Your task to perform on an android device: Open accessibility settings Image 0: 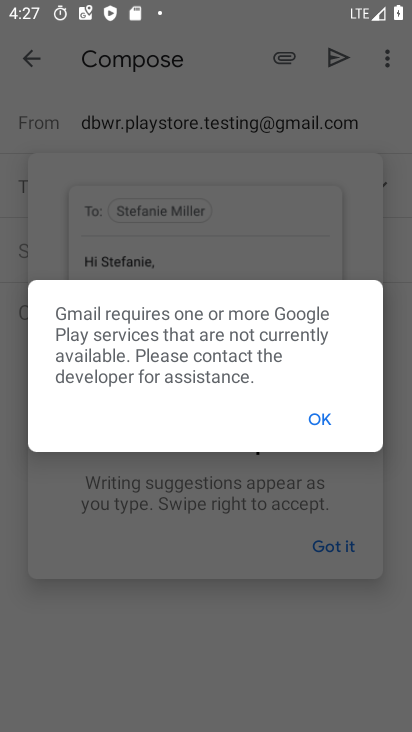
Step 0: press home button
Your task to perform on an android device: Open accessibility settings Image 1: 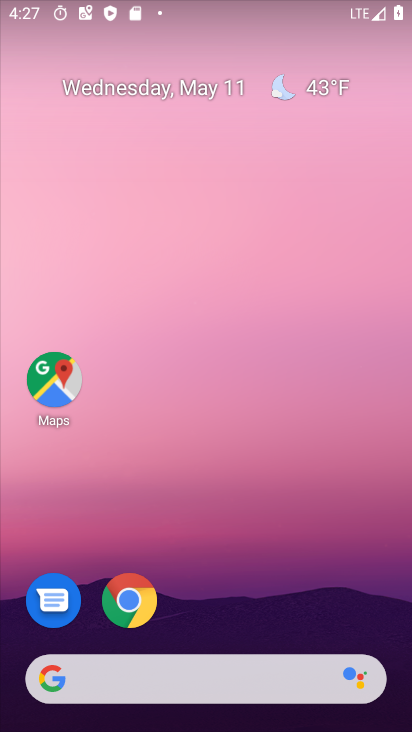
Step 1: drag from (288, 616) to (333, 16)
Your task to perform on an android device: Open accessibility settings Image 2: 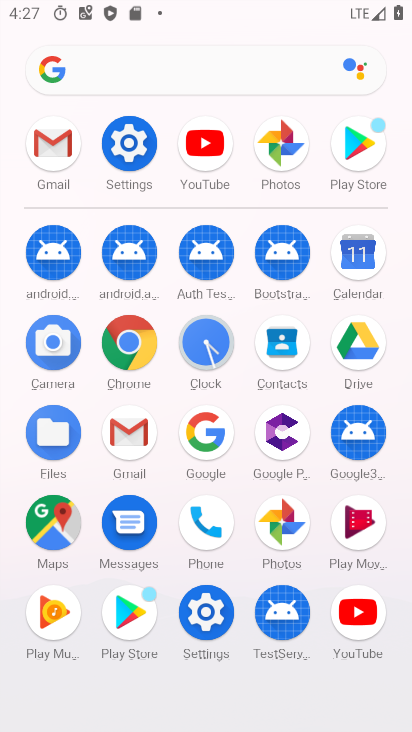
Step 2: click (131, 146)
Your task to perform on an android device: Open accessibility settings Image 3: 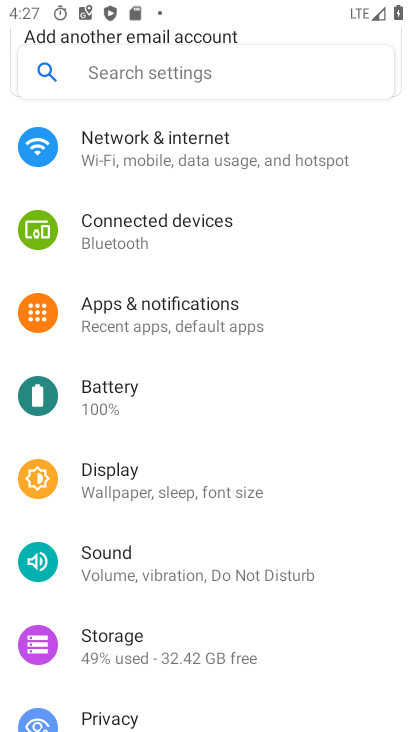
Step 3: drag from (297, 557) to (287, 275)
Your task to perform on an android device: Open accessibility settings Image 4: 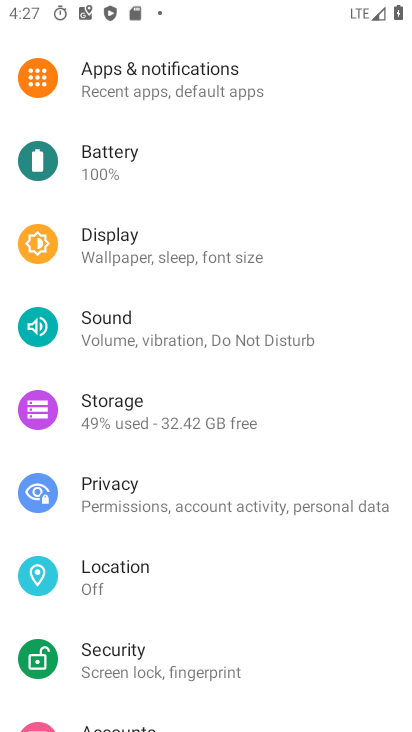
Step 4: drag from (224, 538) to (220, 276)
Your task to perform on an android device: Open accessibility settings Image 5: 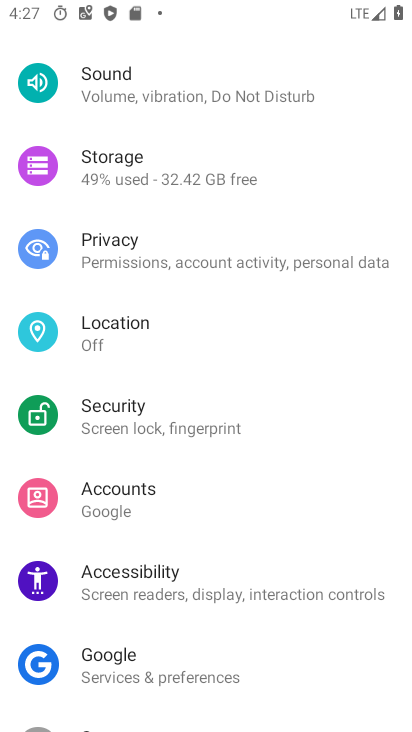
Step 5: click (112, 588)
Your task to perform on an android device: Open accessibility settings Image 6: 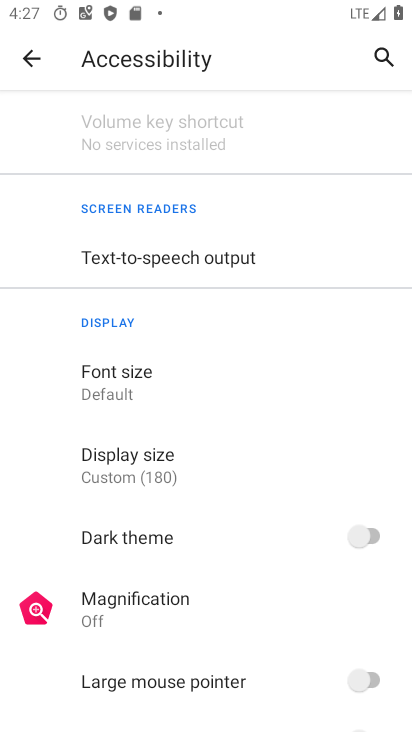
Step 6: task complete